Your task to perform on an android device: turn off javascript in the chrome app Image 0: 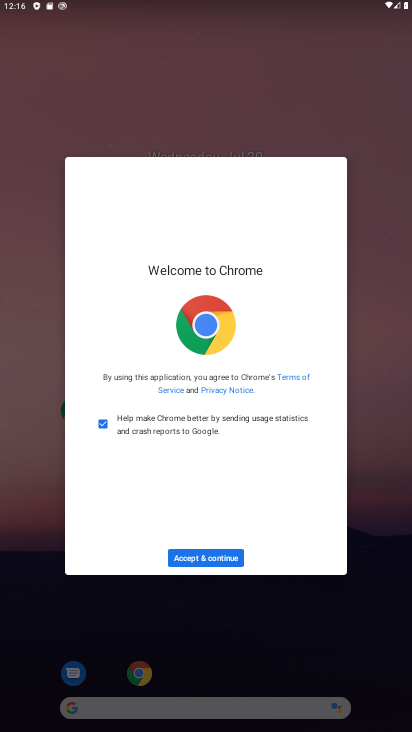
Step 0: click (227, 554)
Your task to perform on an android device: turn off javascript in the chrome app Image 1: 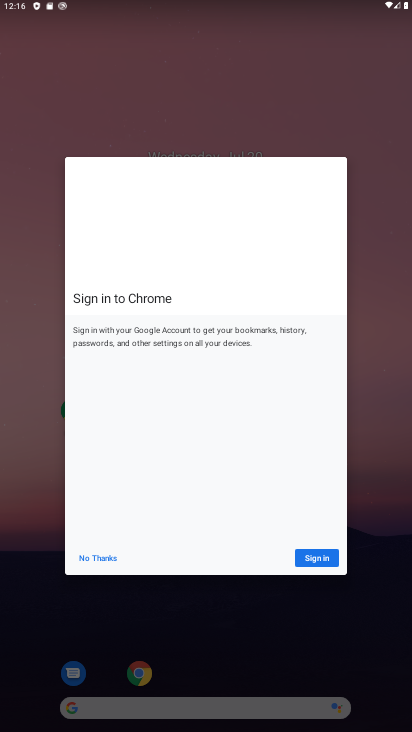
Step 1: click (103, 555)
Your task to perform on an android device: turn off javascript in the chrome app Image 2: 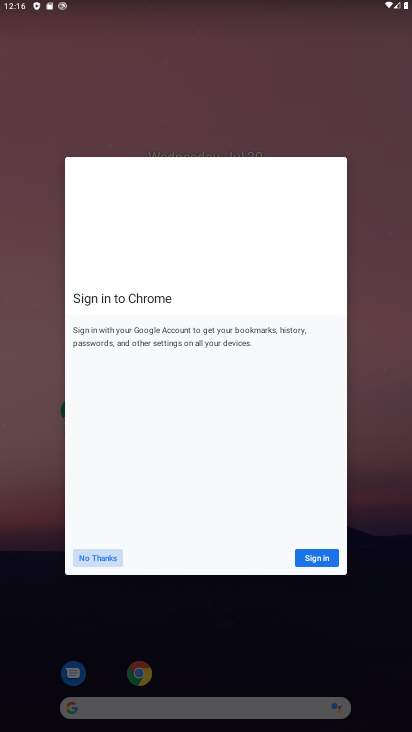
Step 2: click (103, 555)
Your task to perform on an android device: turn off javascript in the chrome app Image 3: 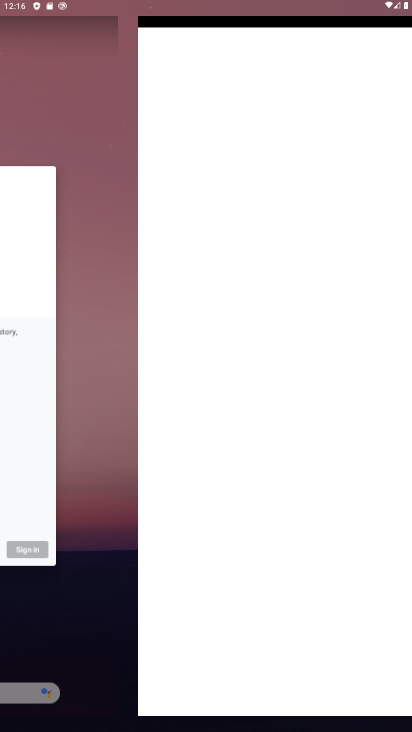
Step 3: click (103, 555)
Your task to perform on an android device: turn off javascript in the chrome app Image 4: 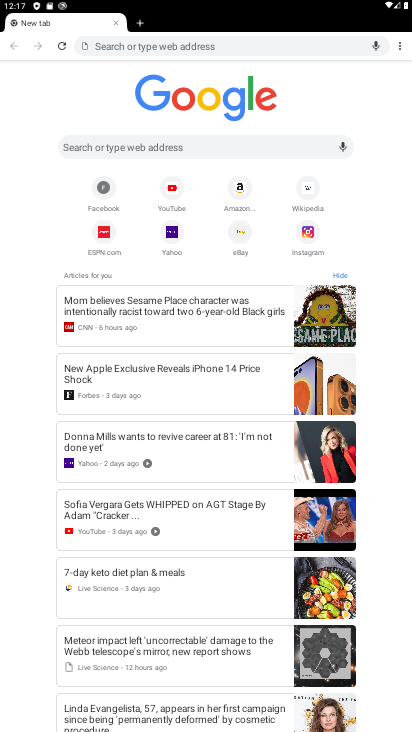
Step 4: click (397, 53)
Your task to perform on an android device: turn off javascript in the chrome app Image 5: 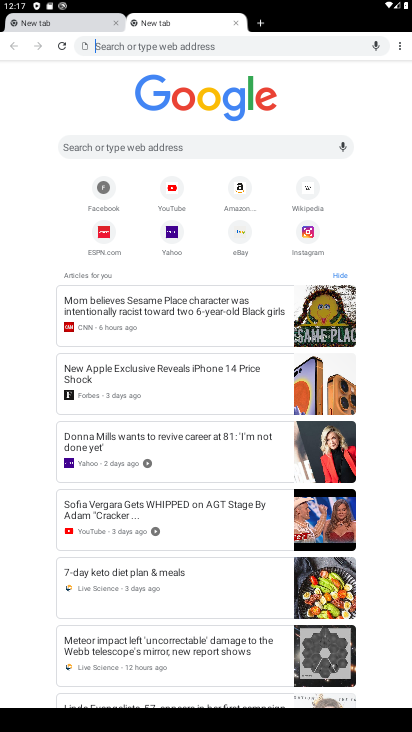
Step 5: drag from (400, 47) to (299, 214)
Your task to perform on an android device: turn off javascript in the chrome app Image 6: 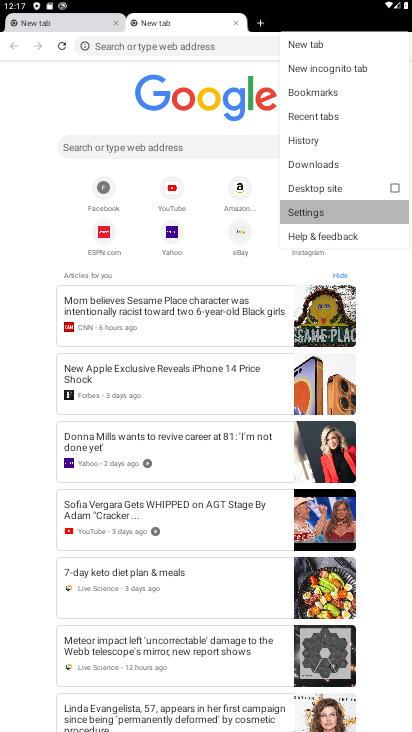
Step 6: click (309, 211)
Your task to perform on an android device: turn off javascript in the chrome app Image 7: 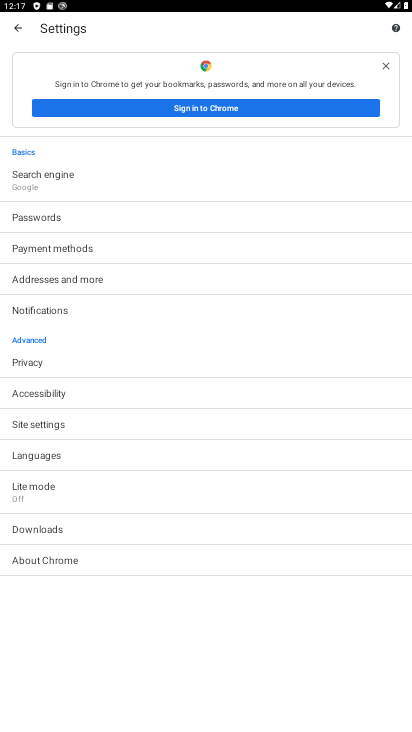
Step 7: click (28, 426)
Your task to perform on an android device: turn off javascript in the chrome app Image 8: 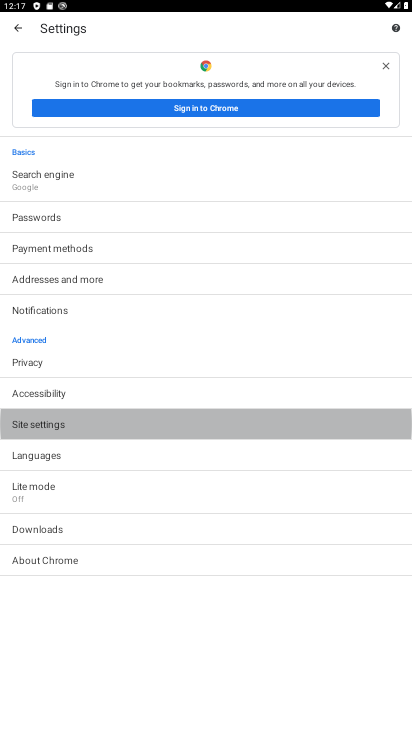
Step 8: click (30, 422)
Your task to perform on an android device: turn off javascript in the chrome app Image 9: 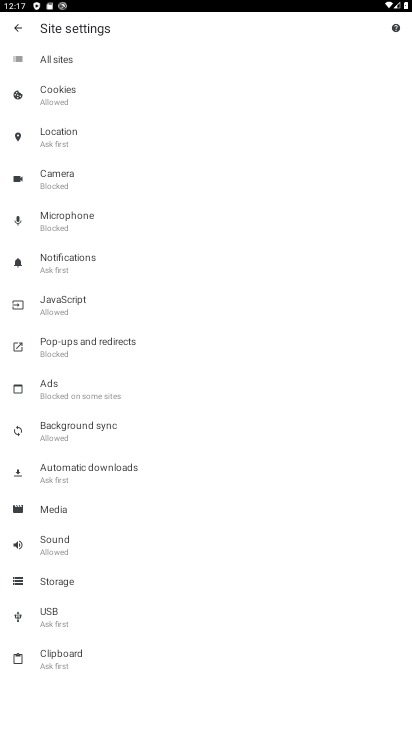
Step 9: click (52, 305)
Your task to perform on an android device: turn off javascript in the chrome app Image 10: 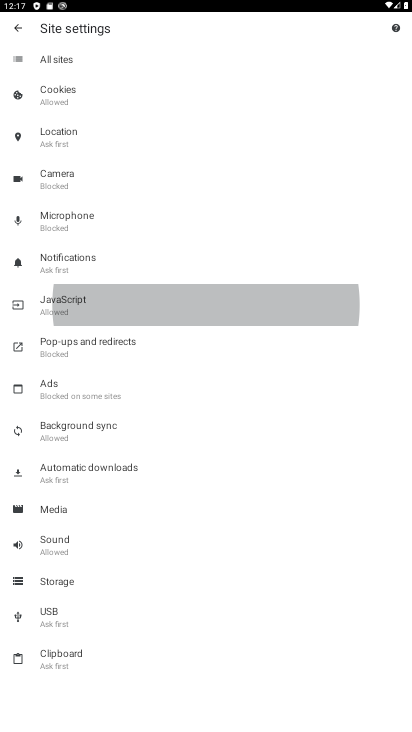
Step 10: click (58, 304)
Your task to perform on an android device: turn off javascript in the chrome app Image 11: 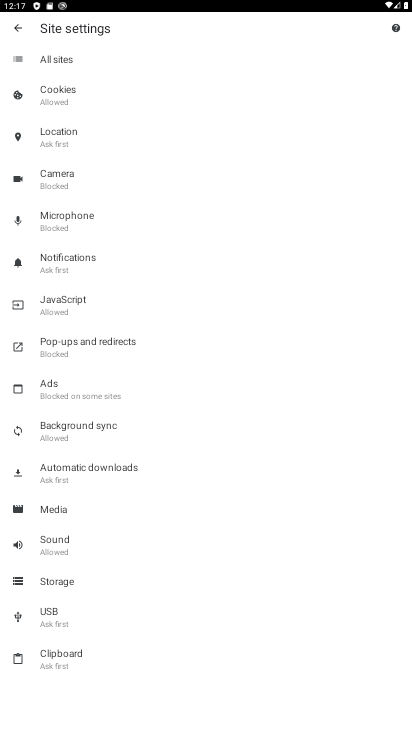
Step 11: click (63, 306)
Your task to perform on an android device: turn off javascript in the chrome app Image 12: 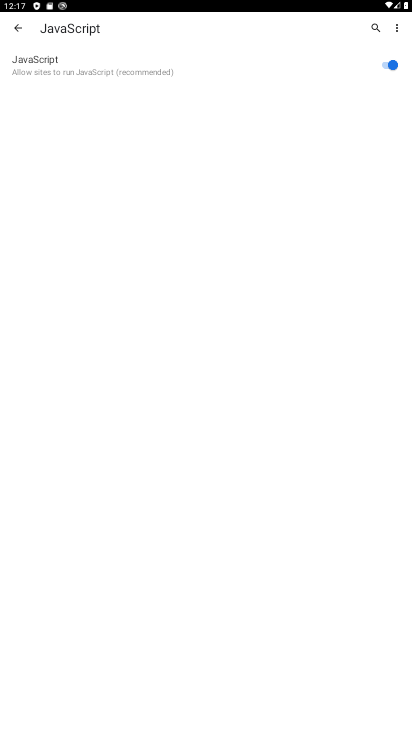
Step 12: click (395, 57)
Your task to perform on an android device: turn off javascript in the chrome app Image 13: 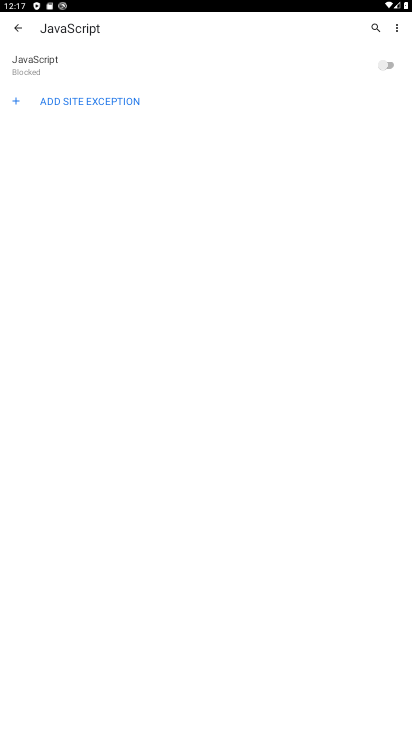
Step 13: task complete